Your task to perform on an android device: change the upload size in google photos Image 0: 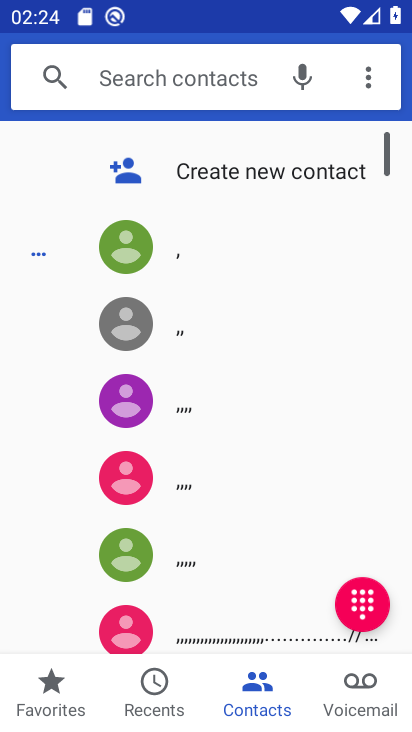
Step 0: press home button
Your task to perform on an android device: change the upload size in google photos Image 1: 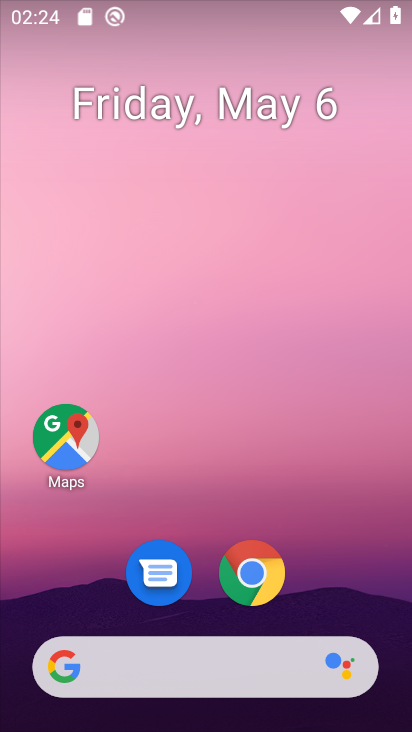
Step 1: drag from (341, 518) to (341, 277)
Your task to perform on an android device: change the upload size in google photos Image 2: 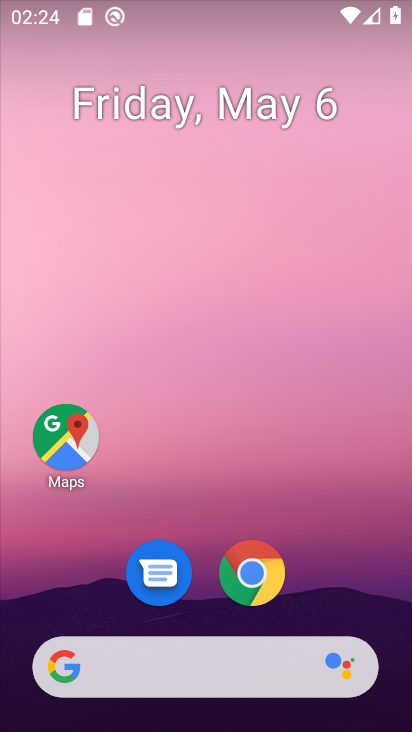
Step 2: drag from (297, 600) to (252, 241)
Your task to perform on an android device: change the upload size in google photos Image 3: 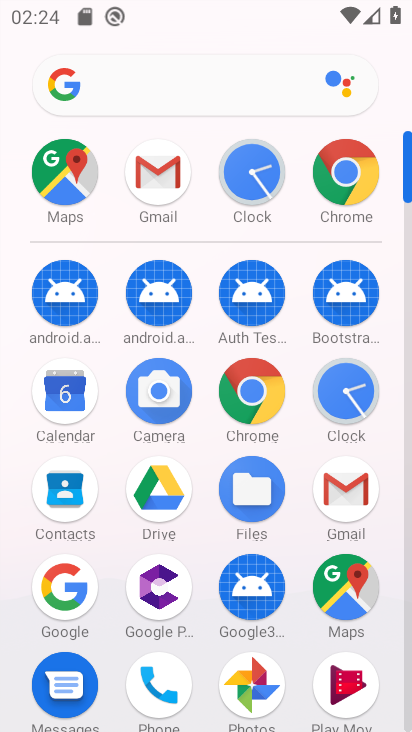
Step 3: click (248, 680)
Your task to perform on an android device: change the upload size in google photos Image 4: 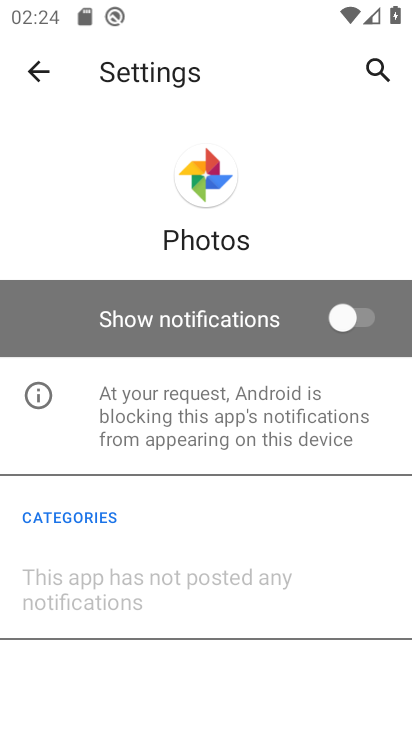
Step 4: click (30, 63)
Your task to perform on an android device: change the upload size in google photos Image 5: 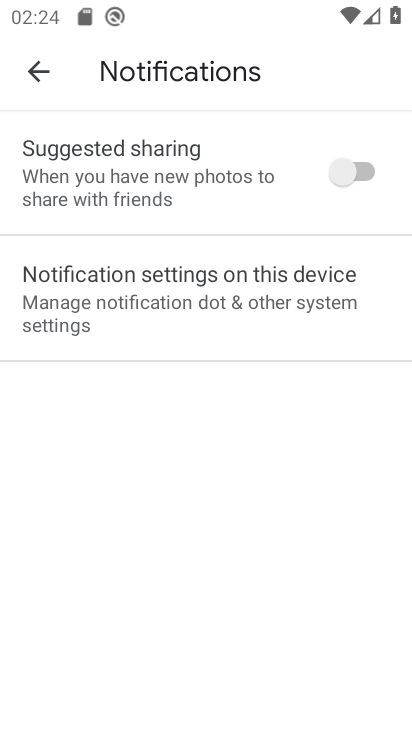
Step 5: click (33, 70)
Your task to perform on an android device: change the upload size in google photos Image 6: 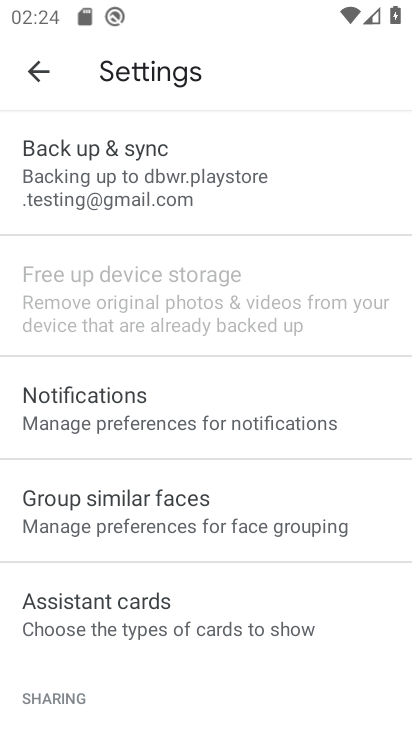
Step 6: click (129, 170)
Your task to perform on an android device: change the upload size in google photos Image 7: 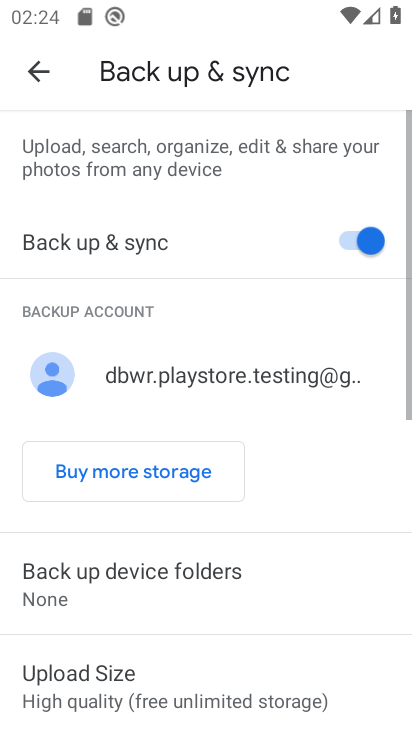
Step 7: click (199, 675)
Your task to perform on an android device: change the upload size in google photos Image 8: 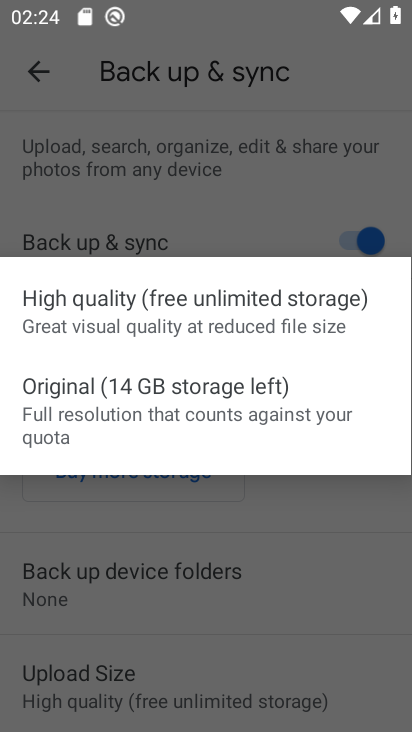
Step 8: click (149, 398)
Your task to perform on an android device: change the upload size in google photos Image 9: 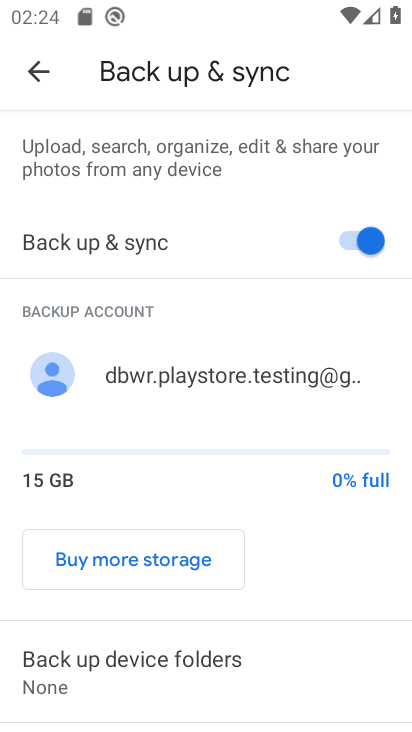
Step 9: task complete